Your task to perform on an android device: Open the map Image 0: 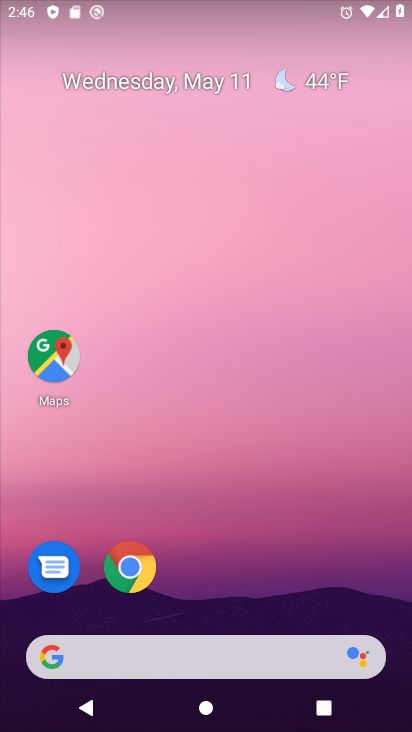
Step 0: drag from (236, 549) to (200, 0)
Your task to perform on an android device: Open the map Image 1: 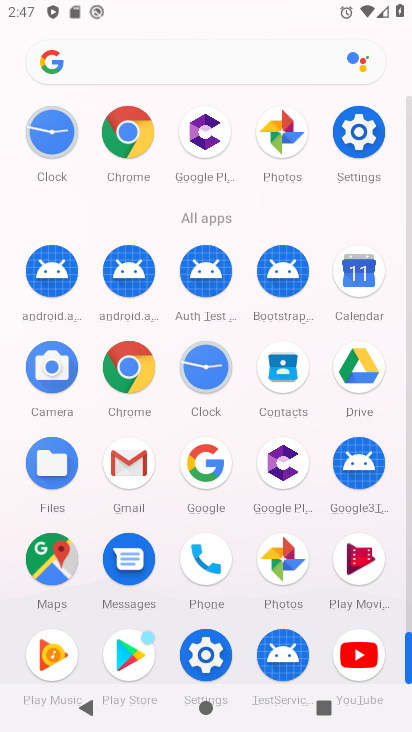
Step 1: drag from (13, 276) to (21, 220)
Your task to perform on an android device: Open the map Image 2: 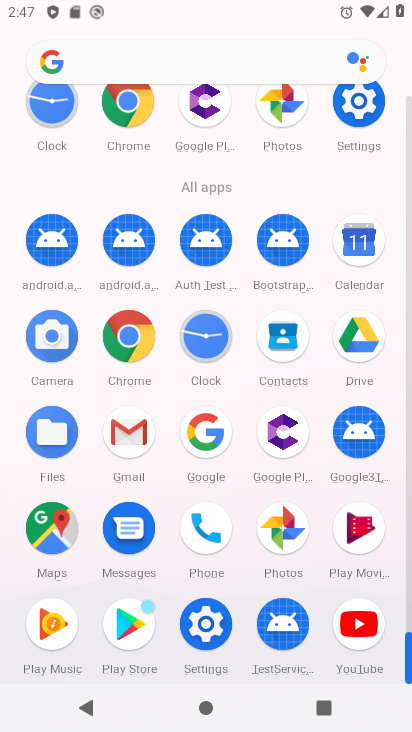
Step 2: click (46, 521)
Your task to perform on an android device: Open the map Image 3: 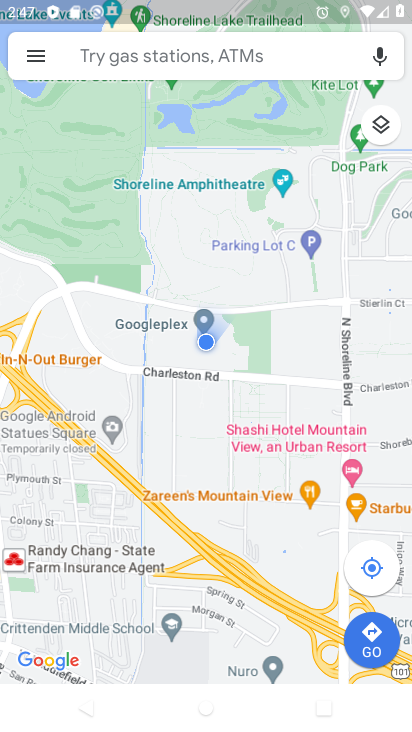
Step 3: task complete